Your task to perform on an android device: check google app version Image 0: 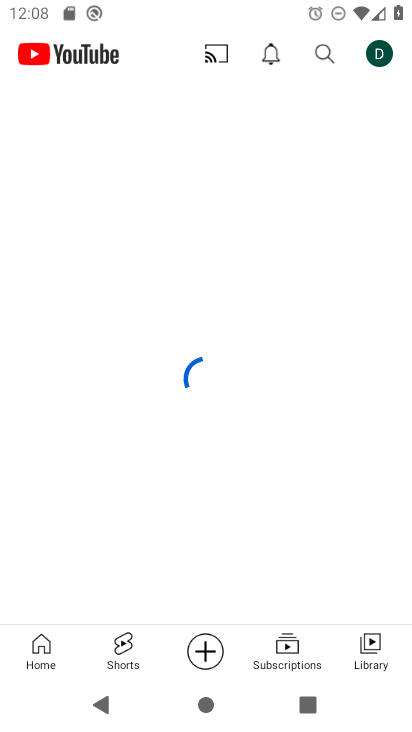
Step 0: press home button
Your task to perform on an android device: check google app version Image 1: 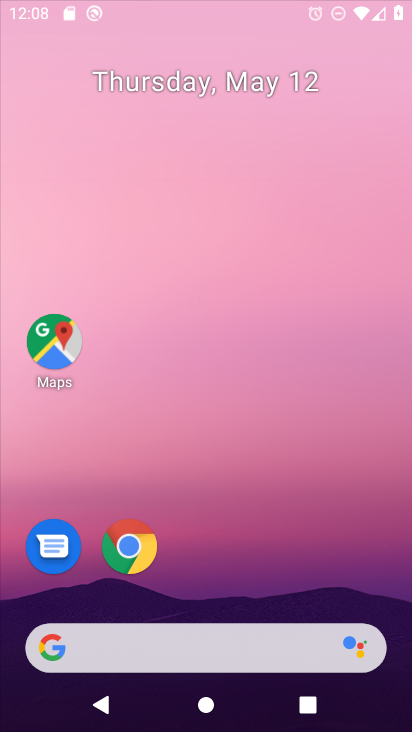
Step 1: drag from (390, 641) to (331, 81)
Your task to perform on an android device: check google app version Image 2: 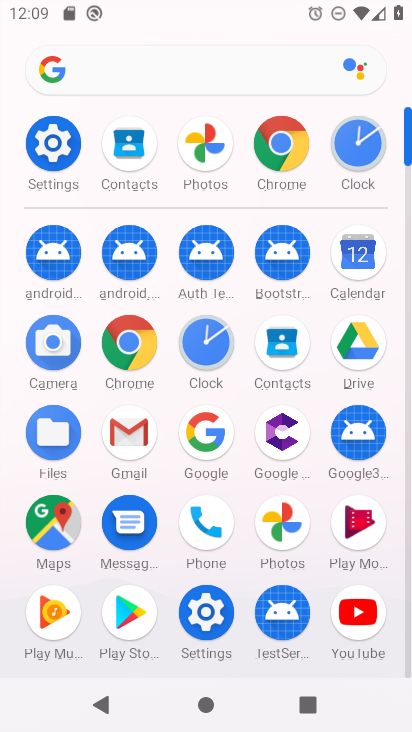
Step 2: click (205, 434)
Your task to perform on an android device: check google app version Image 3: 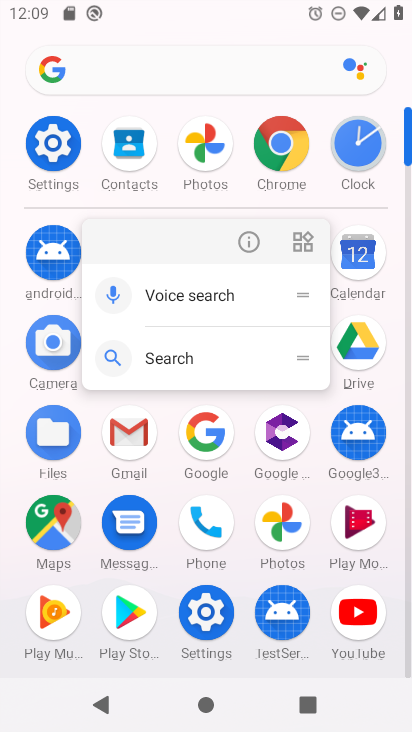
Step 3: click (255, 247)
Your task to perform on an android device: check google app version Image 4: 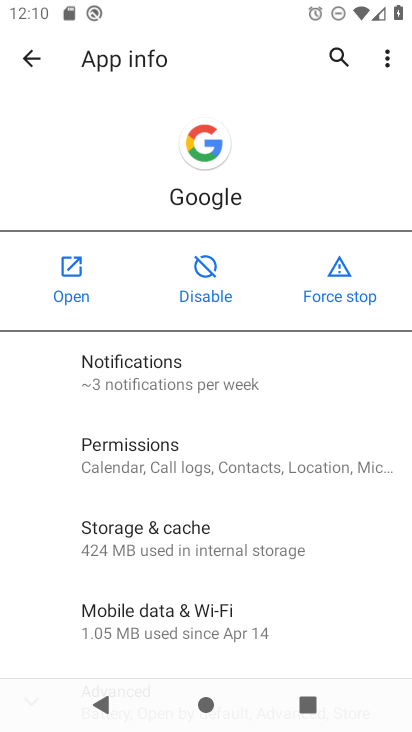
Step 4: drag from (183, 672) to (232, 96)
Your task to perform on an android device: check google app version Image 5: 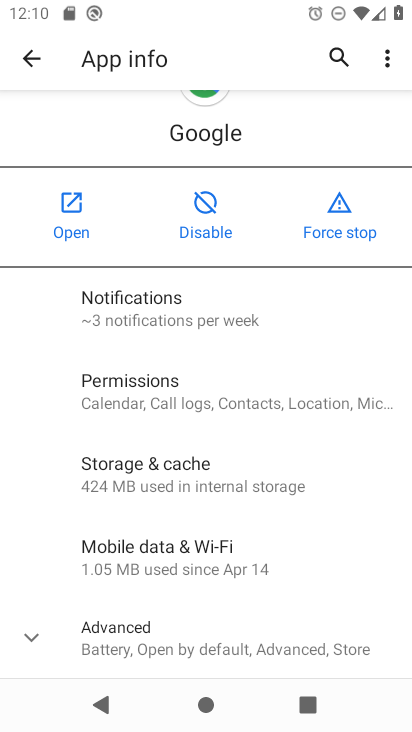
Step 5: click (55, 638)
Your task to perform on an android device: check google app version Image 6: 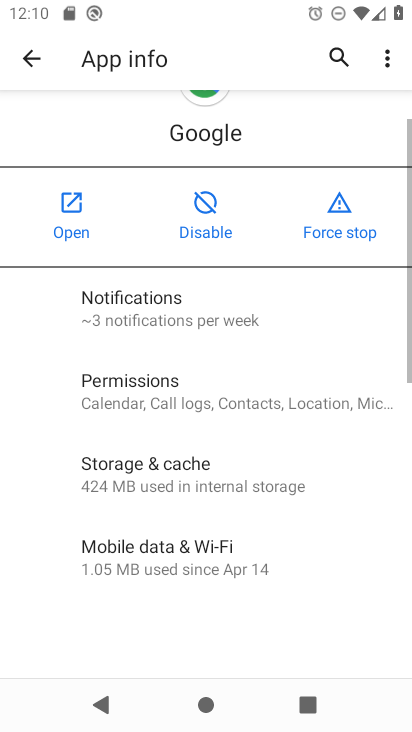
Step 6: task complete